Your task to perform on an android device: Open wifi settings Image 0: 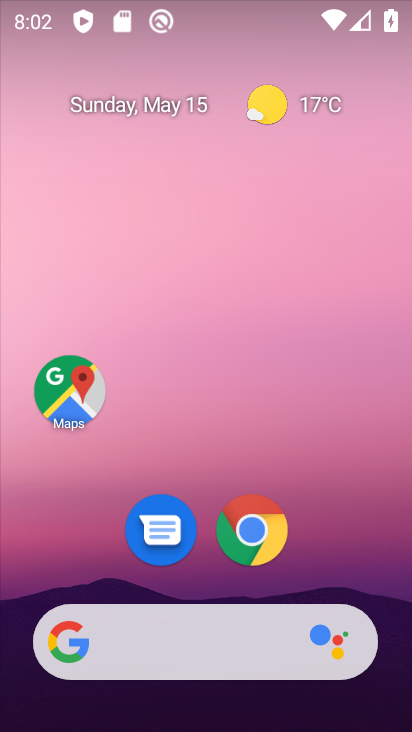
Step 0: drag from (192, 718) to (171, 127)
Your task to perform on an android device: Open wifi settings Image 1: 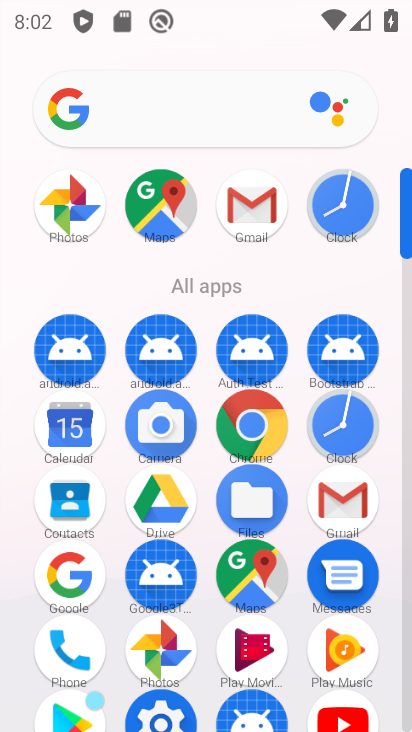
Step 1: drag from (201, 629) to (186, 233)
Your task to perform on an android device: Open wifi settings Image 2: 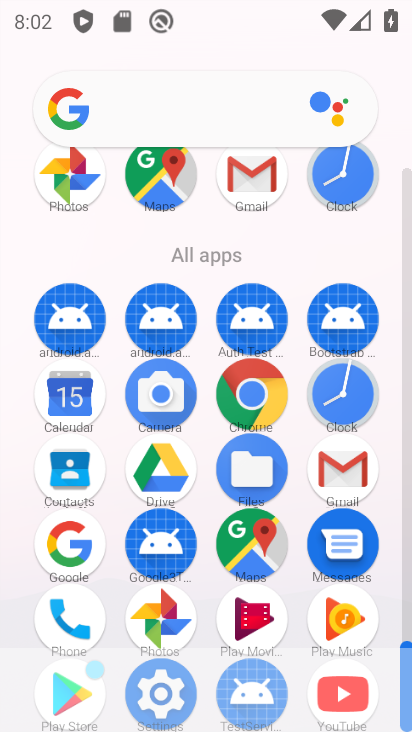
Step 2: drag from (201, 584) to (190, 0)
Your task to perform on an android device: Open wifi settings Image 3: 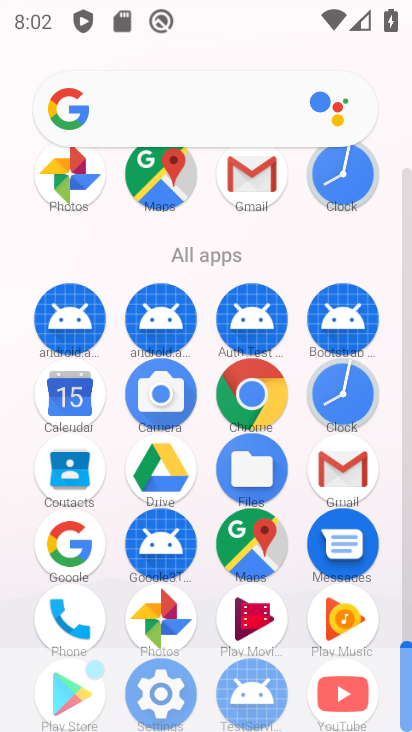
Step 3: click (155, 664)
Your task to perform on an android device: Open wifi settings Image 4: 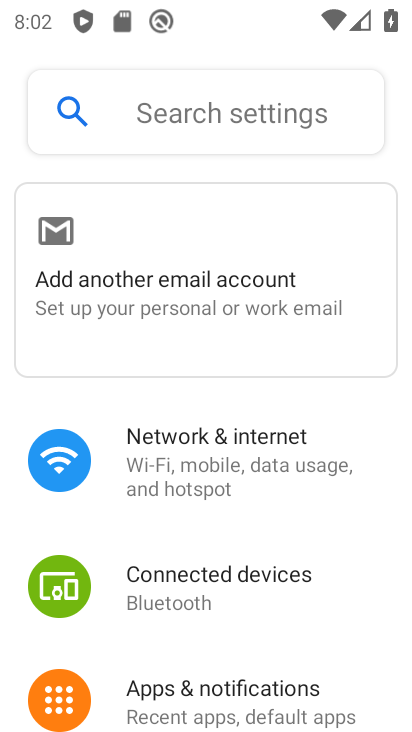
Step 4: click (172, 450)
Your task to perform on an android device: Open wifi settings Image 5: 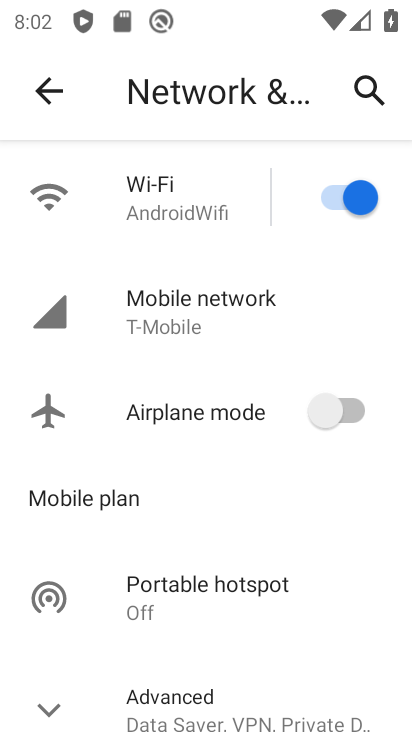
Step 5: click (151, 195)
Your task to perform on an android device: Open wifi settings Image 6: 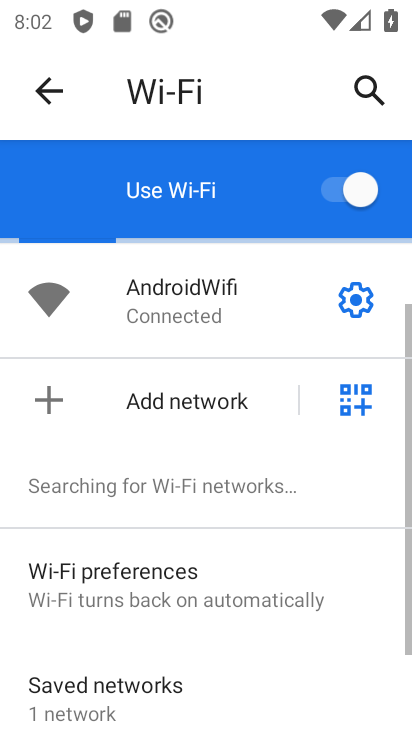
Step 6: task complete